Your task to perform on an android device: Open Google Chrome Image 0: 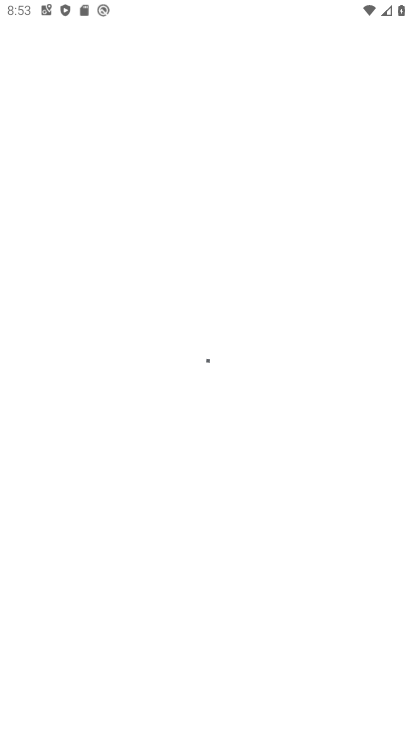
Step 0: press home button
Your task to perform on an android device: Open Google Chrome Image 1: 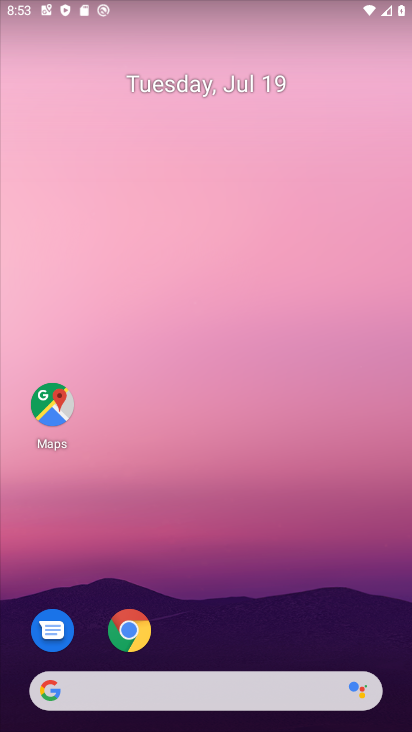
Step 1: click (135, 633)
Your task to perform on an android device: Open Google Chrome Image 2: 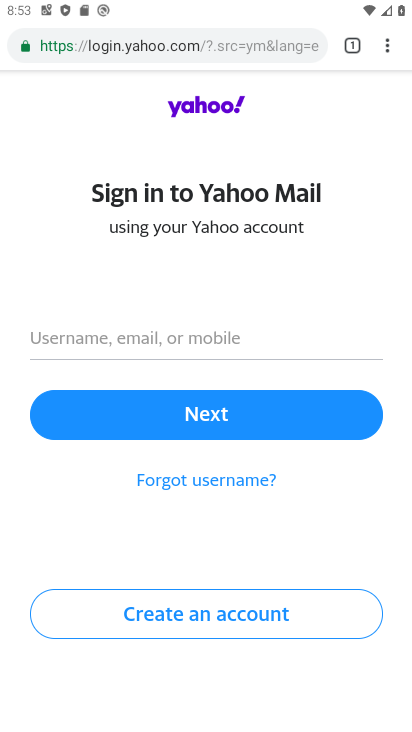
Step 2: task complete